Your task to perform on an android device: turn vacation reply on in the gmail app Image 0: 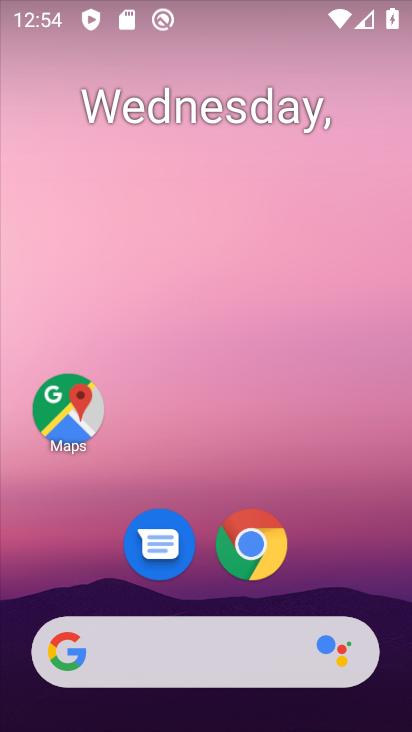
Step 0: drag from (323, 509) to (251, 57)
Your task to perform on an android device: turn vacation reply on in the gmail app Image 1: 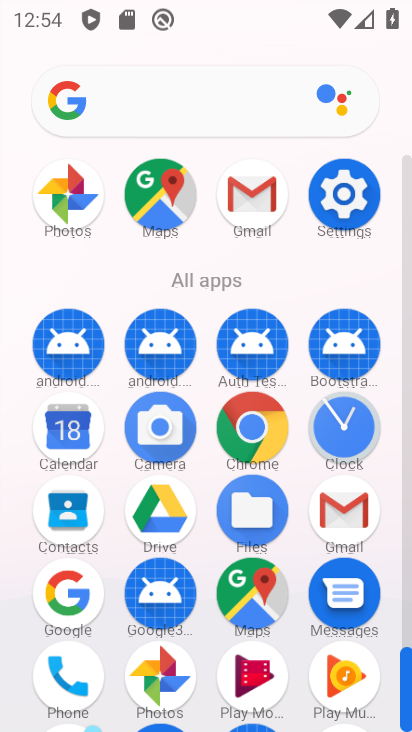
Step 1: click (255, 214)
Your task to perform on an android device: turn vacation reply on in the gmail app Image 2: 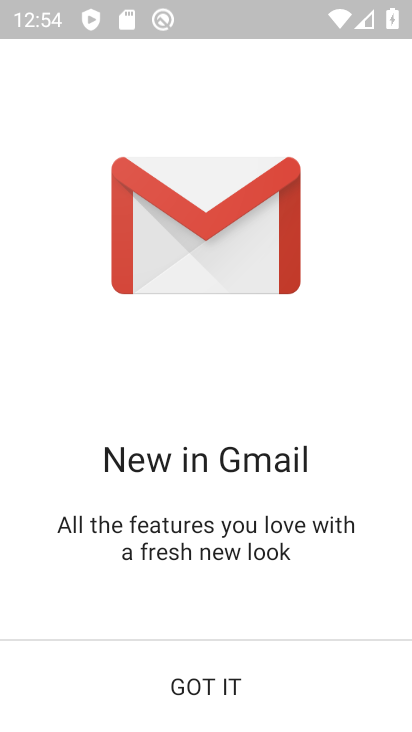
Step 2: click (232, 681)
Your task to perform on an android device: turn vacation reply on in the gmail app Image 3: 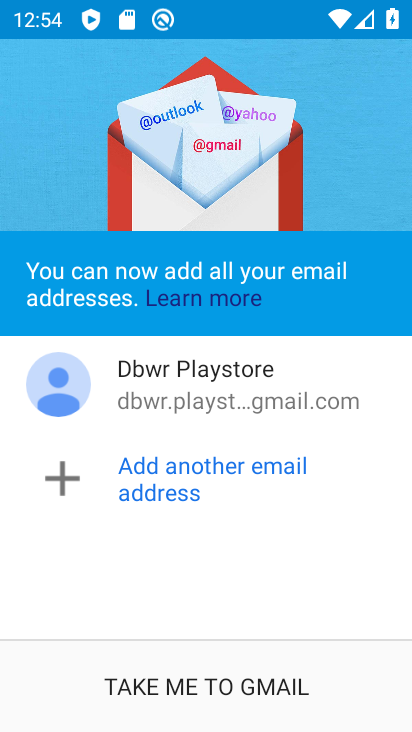
Step 3: click (232, 681)
Your task to perform on an android device: turn vacation reply on in the gmail app Image 4: 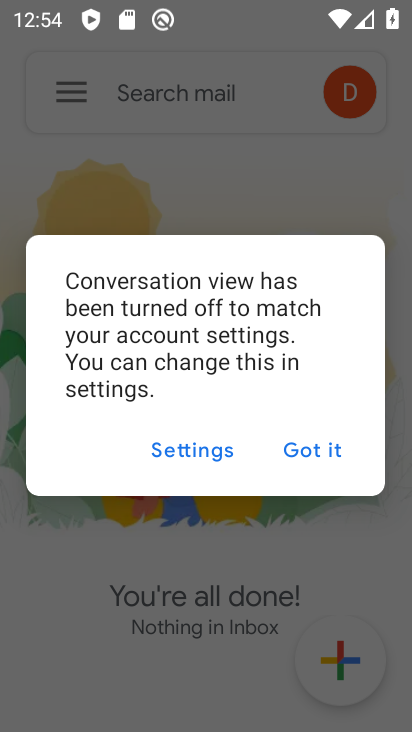
Step 4: click (290, 437)
Your task to perform on an android device: turn vacation reply on in the gmail app Image 5: 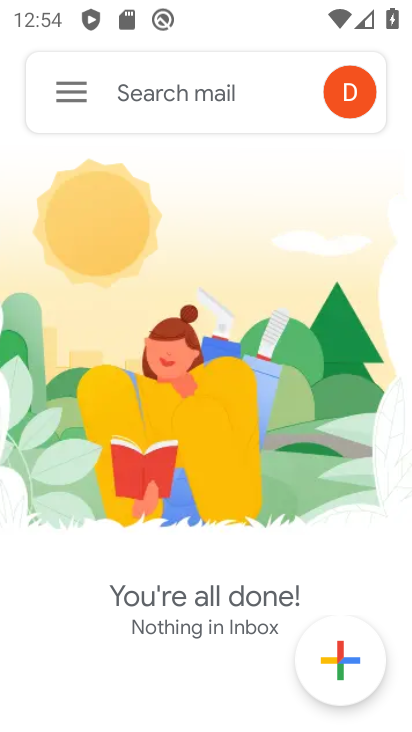
Step 5: click (79, 131)
Your task to perform on an android device: turn vacation reply on in the gmail app Image 6: 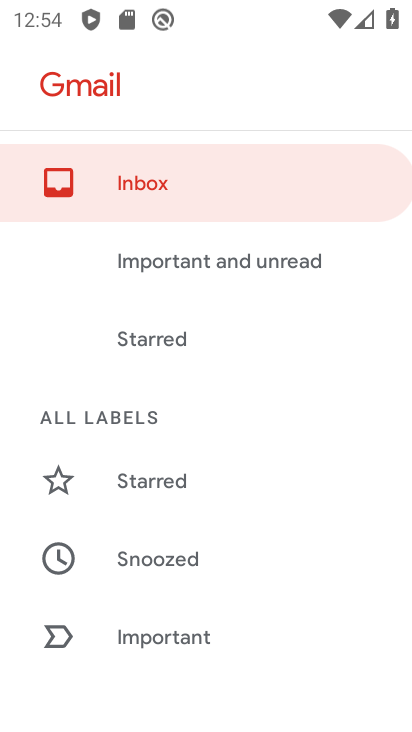
Step 6: drag from (184, 599) to (180, 189)
Your task to perform on an android device: turn vacation reply on in the gmail app Image 7: 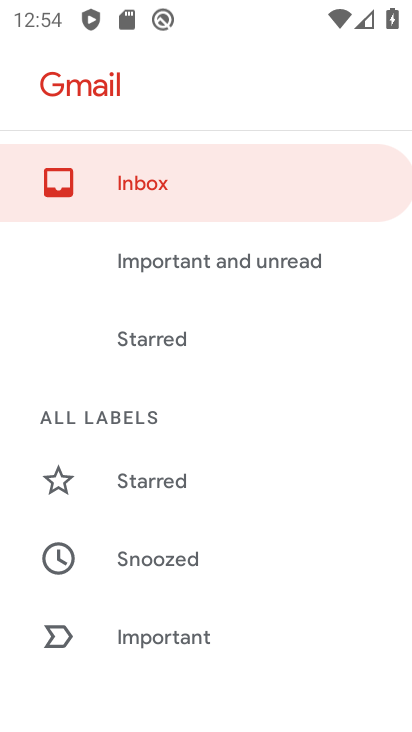
Step 7: drag from (238, 587) to (241, 218)
Your task to perform on an android device: turn vacation reply on in the gmail app Image 8: 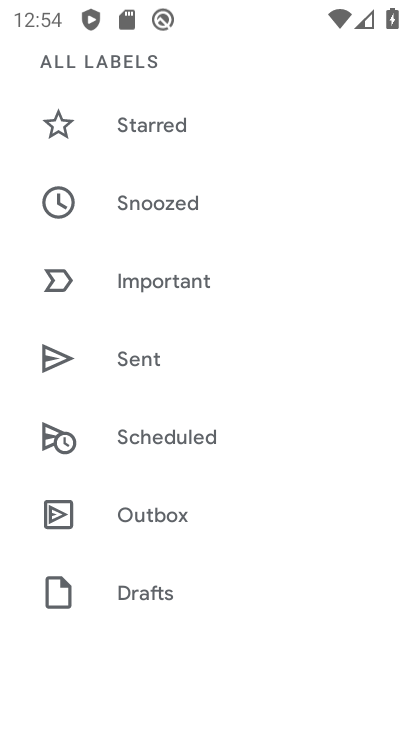
Step 8: drag from (222, 599) to (212, 183)
Your task to perform on an android device: turn vacation reply on in the gmail app Image 9: 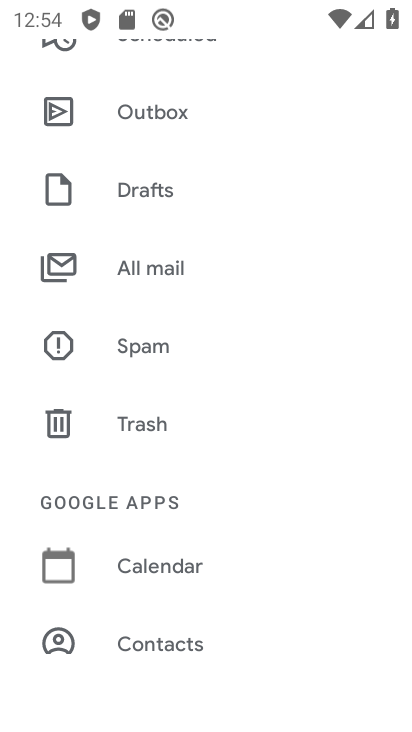
Step 9: drag from (237, 489) to (231, 187)
Your task to perform on an android device: turn vacation reply on in the gmail app Image 10: 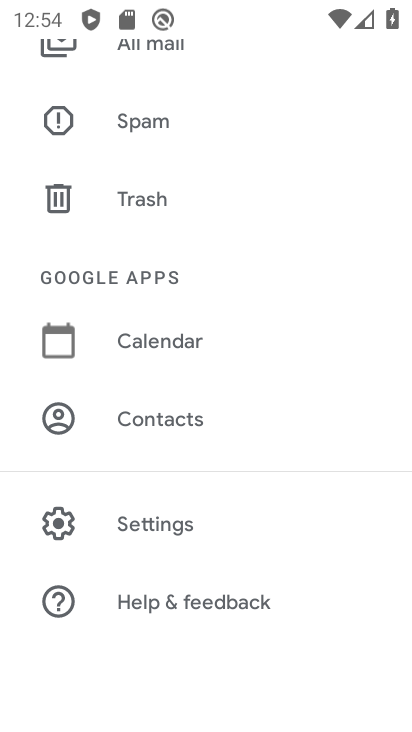
Step 10: click (188, 524)
Your task to perform on an android device: turn vacation reply on in the gmail app Image 11: 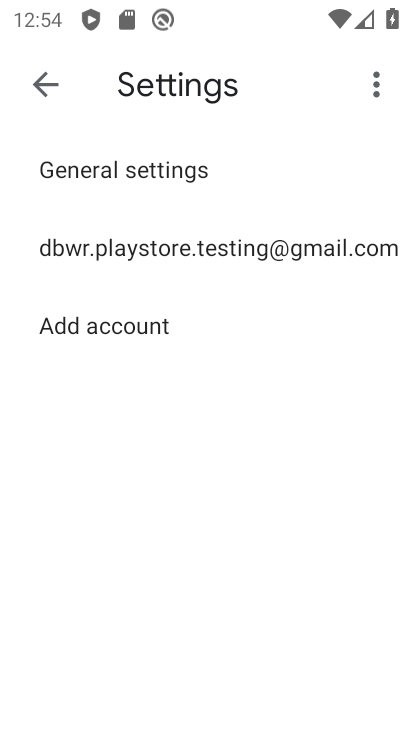
Step 11: click (247, 241)
Your task to perform on an android device: turn vacation reply on in the gmail app Image 12: 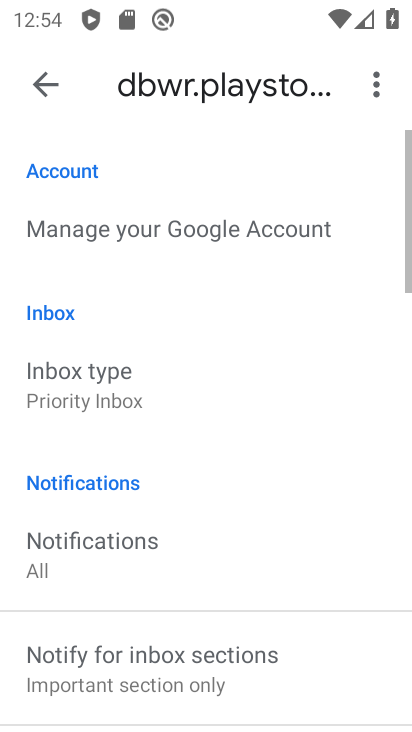
Step 12: drag from (253, 624) to (247, 262)
Your task to perform on an android device: turn vacation reply on in the gmail app Image 13: 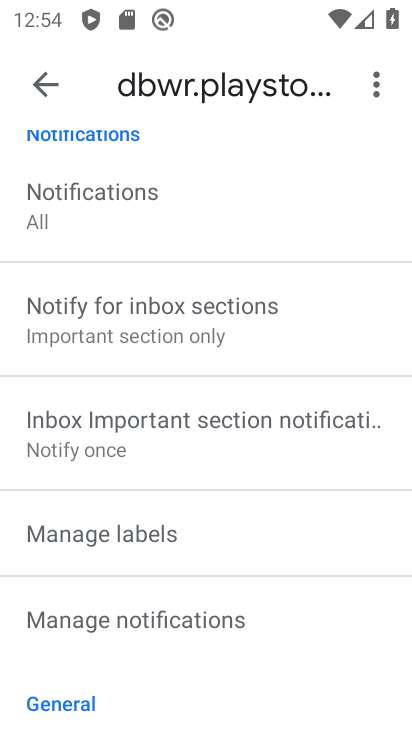
Step 13: drag from (266, 544) to (284, 169)
Your task to perform on an android device: turn vacation reply on in the gmail app Image 14: 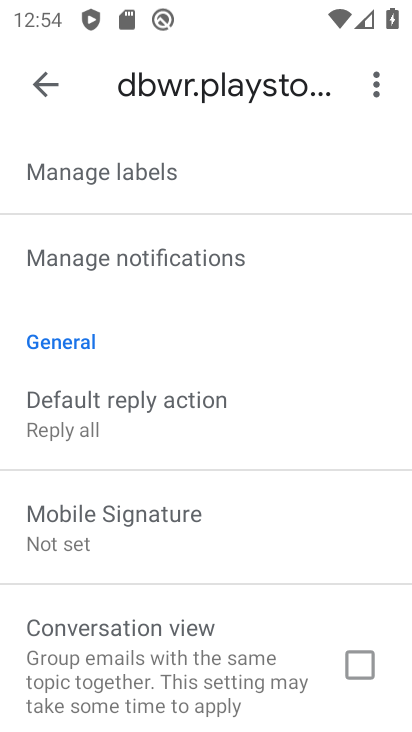
Step 14: drag from (263, 584) to (233, 179)
Your task to perform on an android device: turn vacation reply on in the gmail app Image 15: 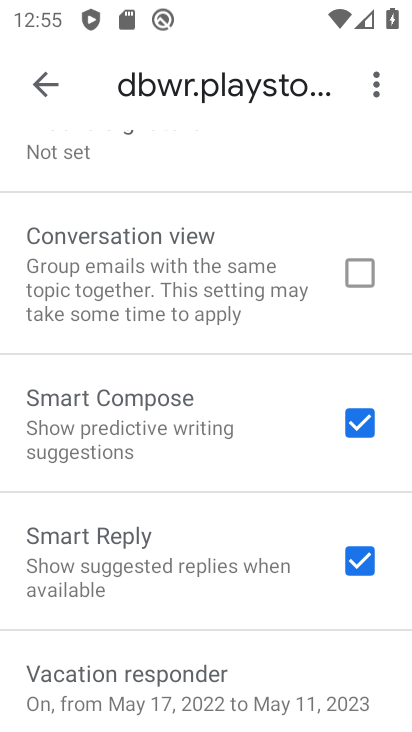
Step 15: drag from (241, 666) to (226, 321)
Your task to perform on an android device: turn vacation reply on in the gmail app Image 16: 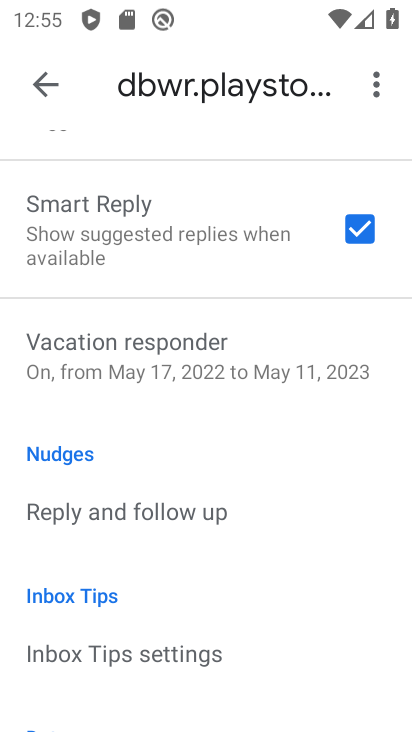
Step 16: click (223, 364)
Your task to perform on an android device: turn vacation reply on in the gmail app Image 17: 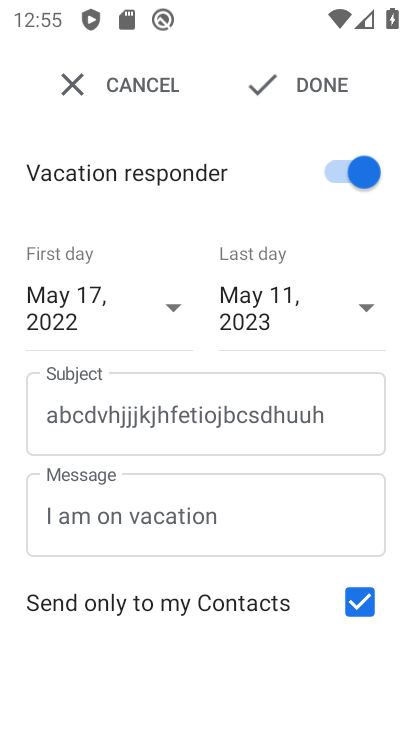
Step 17: click (311, 87)
Your task to perform on an android device: turn vacation reply on in the gmail app Image 18: 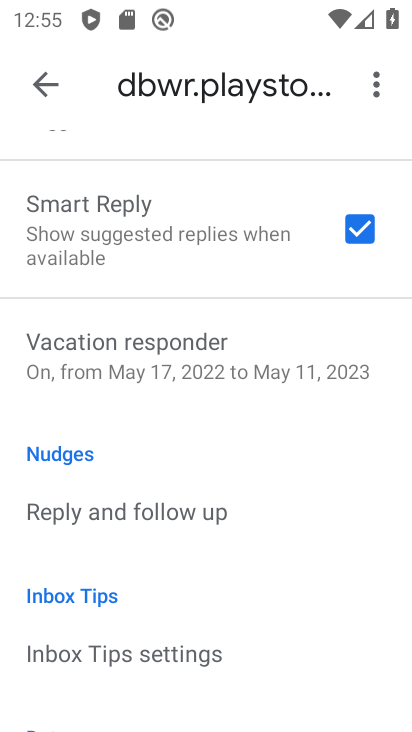
Step 18: task complete